Your task to perform on an android device: Go to Google maps Image 0: 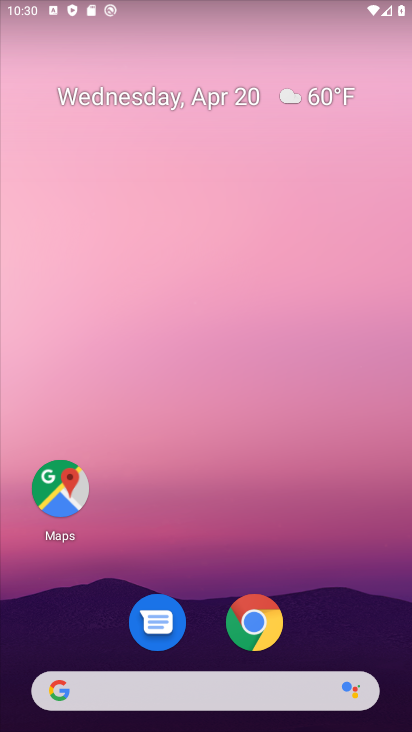
Step 0: drag from (350, 587) to (264, 87)
Your task to perform on an android device: Go to Google maps Image 1: 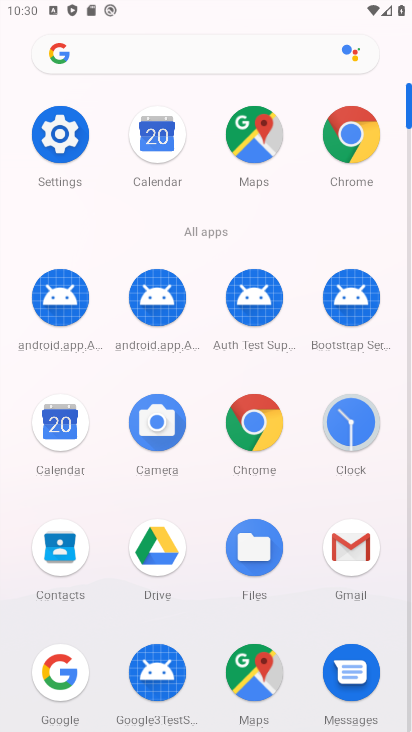
Step 1: click (282, 167)
Your task to perform on an android device: Go to Google maps Image 2: 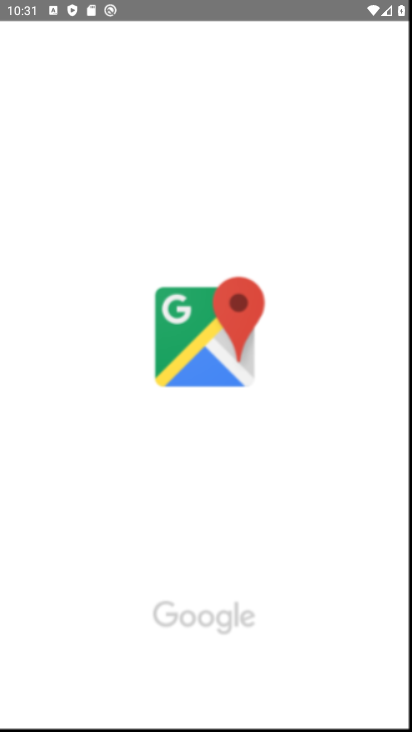
Step 2: task complete